Your task to perform on an android device: Open Amazon Image 0: 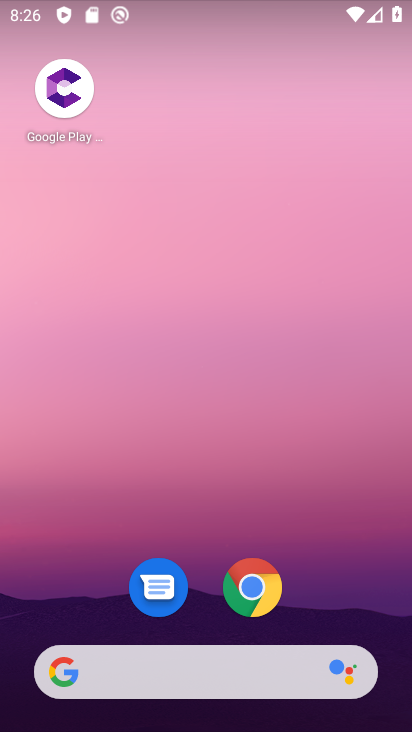
Step 0: click (251, 584)
Your task to perform on an android device: Open Amazon Image 1: 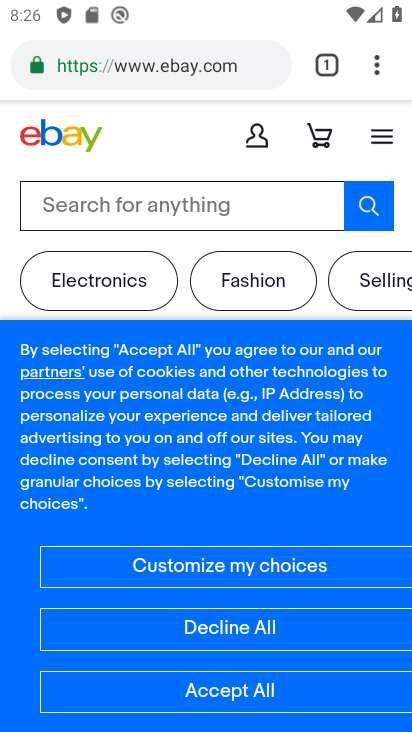
Step 1: click (377, 70)
Your task to perform on an android device: Open Amazon Image 2: 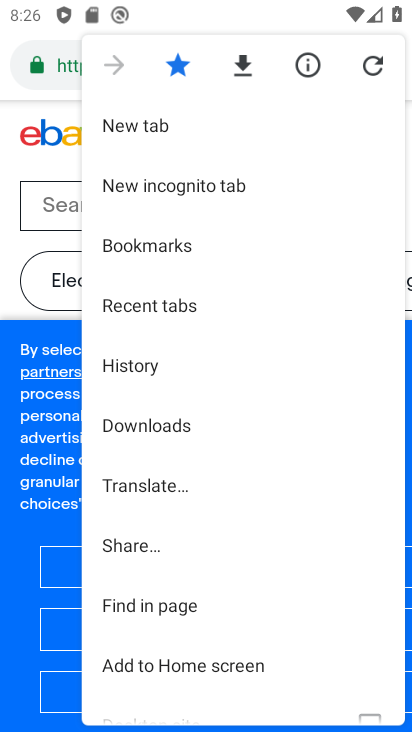
Step 2: click (146, 124)
Your task to perform on an android device: Open Amazon Image 3: 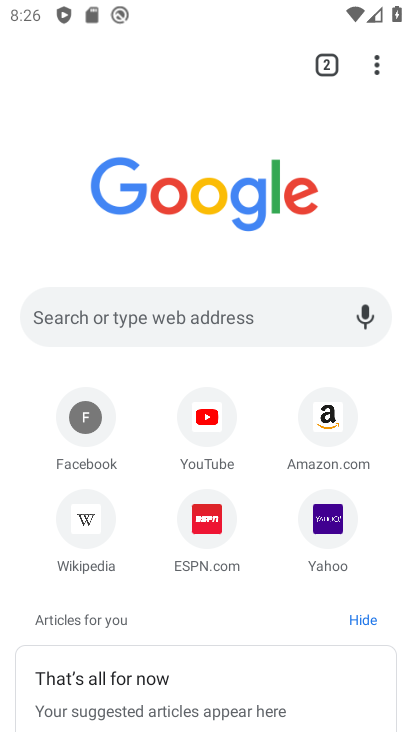
Step 3: click (326, 415)
Your task to perform on an android device: Open Amazon Image 4: 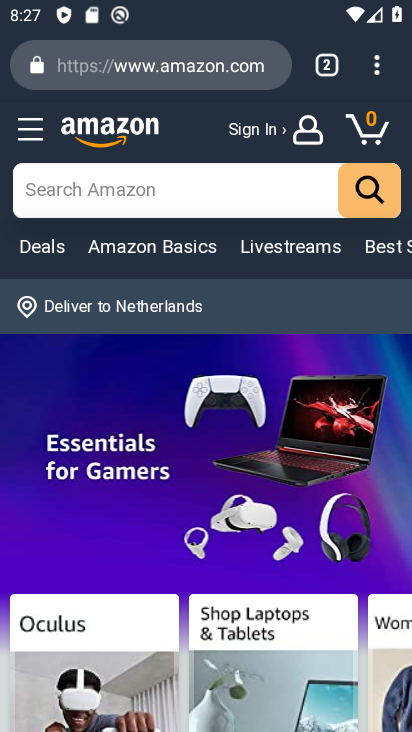
Step 4: task complete